Your task to perform on an android device: turn on the 24-hour format for clock Image 0: 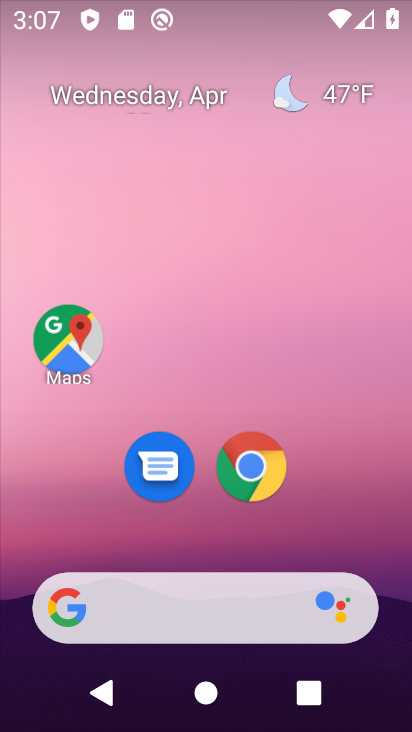
Step 0: drag from (302, 394) to (136, 149)
Your task to perform on an android device: turn on the 24-hour format for clock Image 1: 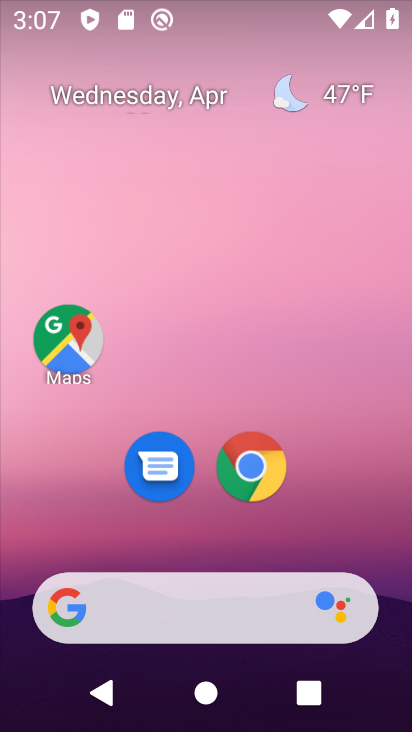
Step 1: drag from (338, 486) to (84, 62)
Your task to perform on an android device: turn on the 24-hour format for clock Image 2: 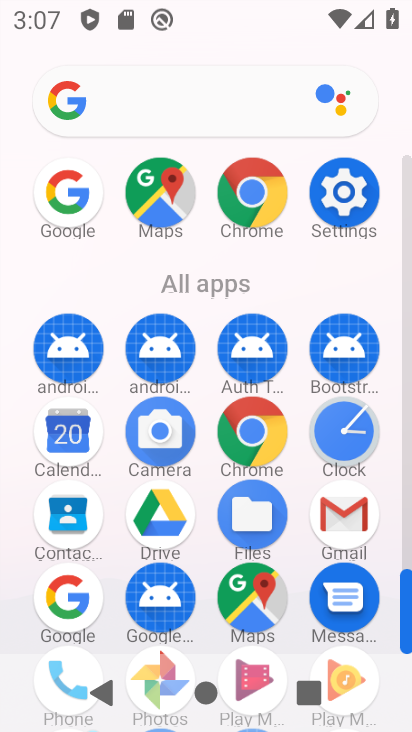
Step 2: click (360, 431)
Your task to perform on an android device: turn on the 24-hour format for clock Image 3: 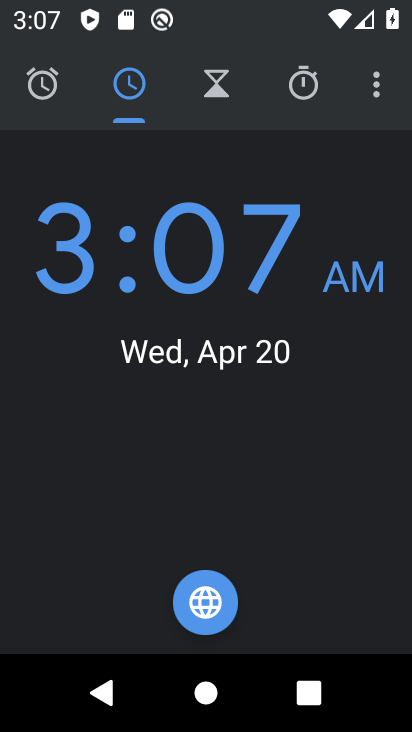
Step 3: click (378, 89)
Your task to perform on an android device: turn on the 24-hour format for clock Image 4: 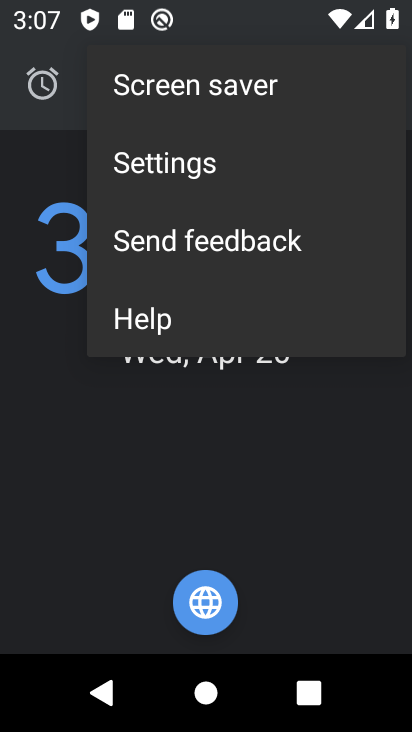
Step 4: click (221, 166)
Your task to perform on an android device: turn on the 24-hour format for clock Image 5: 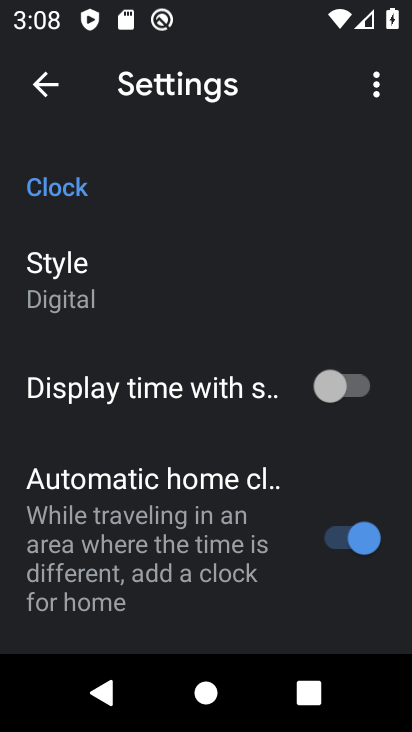
Step 5: drag from (194, 553) to (164, 364)
Your task to perform on an android device: turn on the 24-hour format for clock Image 6: 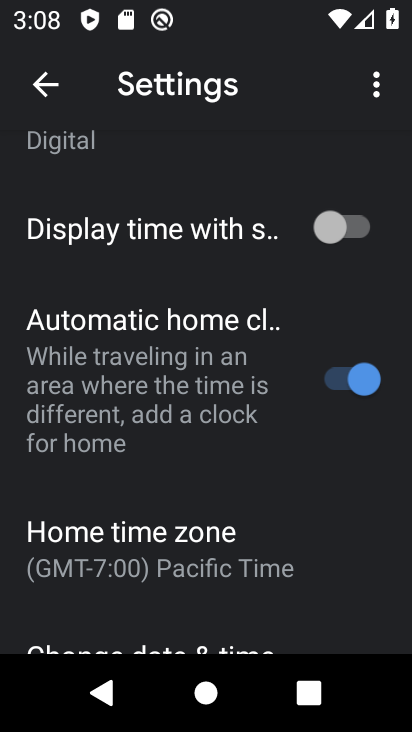
Step 6: drag from (160, 577) to (147, 349)
Your task to perform on an android device: turn on the 24-hour format for clock Image 7: 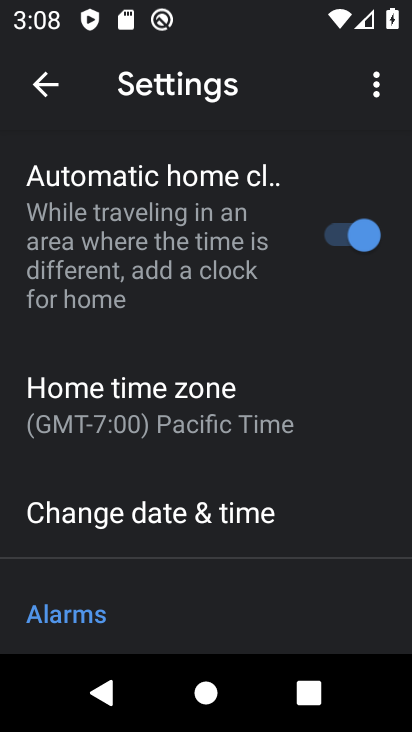
Step 7: click (98, 529)
Your task to perform on an android device: turn on the 24-hour format for clock Image 8: 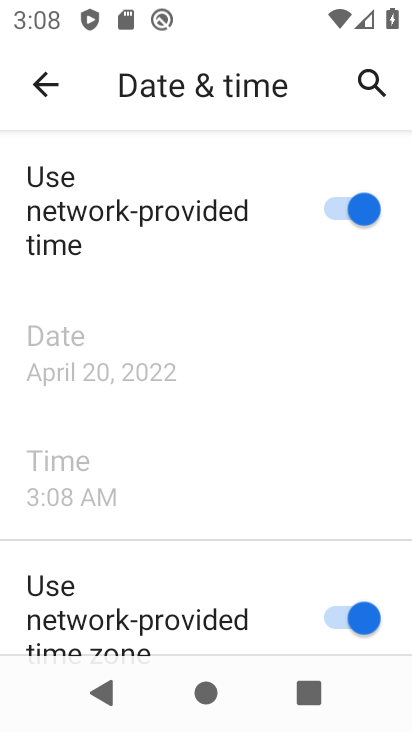
Step 8: drag from (127, 567) to (160, 130)
Your task to perform on an android device: turn on the 24-hour format for clock Image 9: 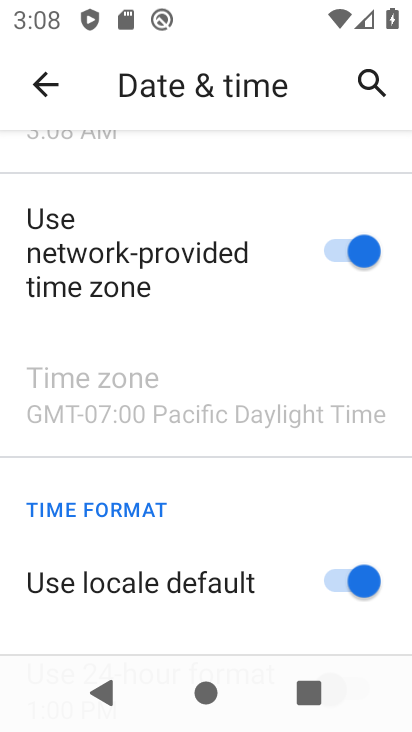
Step 9: drag from (167, 573) to (198, 214)
Your task to perform on an android device: turn on the 24-hour format for clock Image 10: 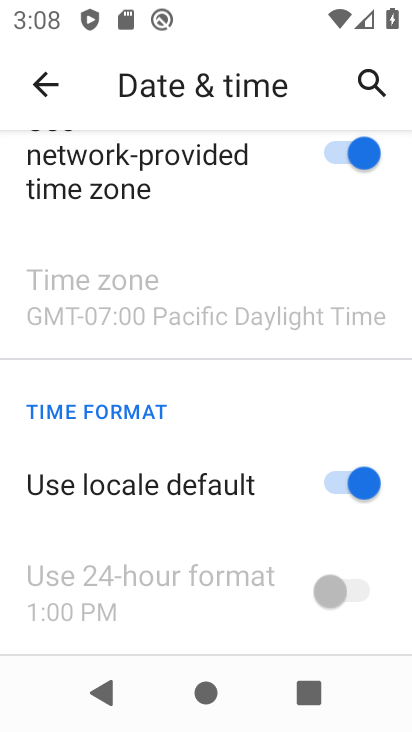
Step 10: click (360, 489)
Your task to perform on an android device: turn on the 24-hour format for clock Image 11: 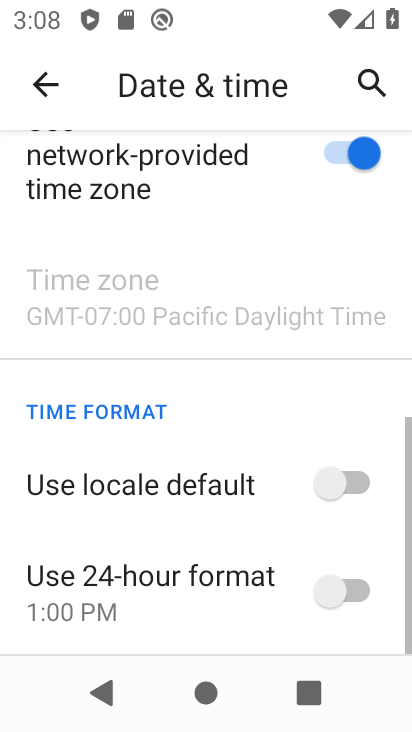
Step 11: click (338, 593)
Your task to perform on an android device: turn on the 24-hour format for clock Image 12: 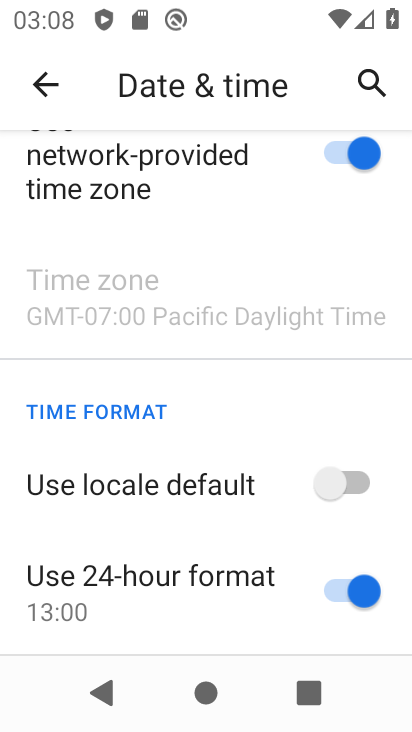
Step 12: task complete